Your task to perform on an android device: turn on wifi Image 0: 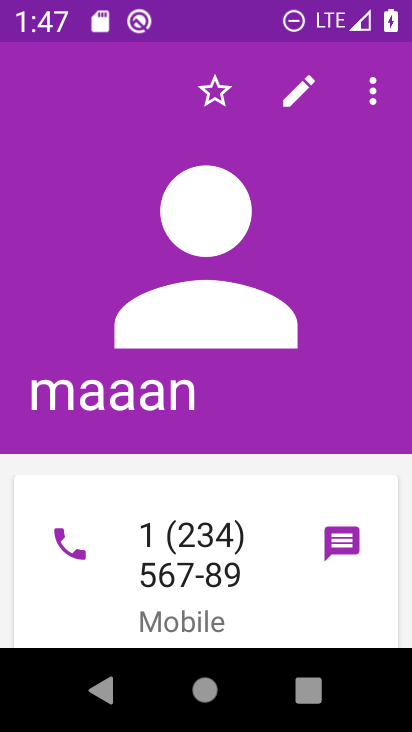
Step 0: press home button
Your task to perform on an android device: turn on wifi Image 1: 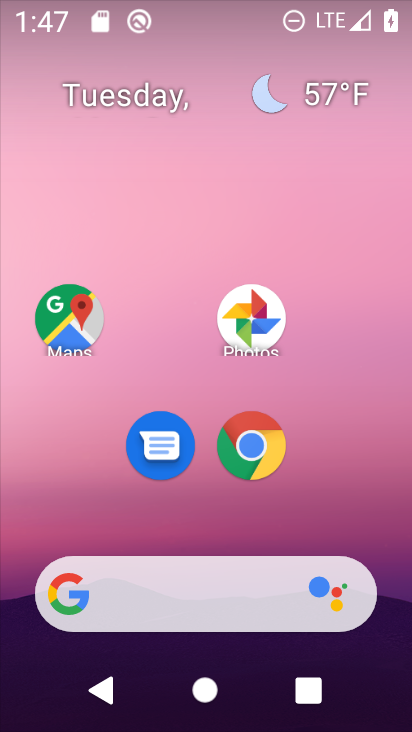
Step 1: drag from (378, 505) to (389, 182)
Your task to perform on an android device: turn on wifi Image 2: 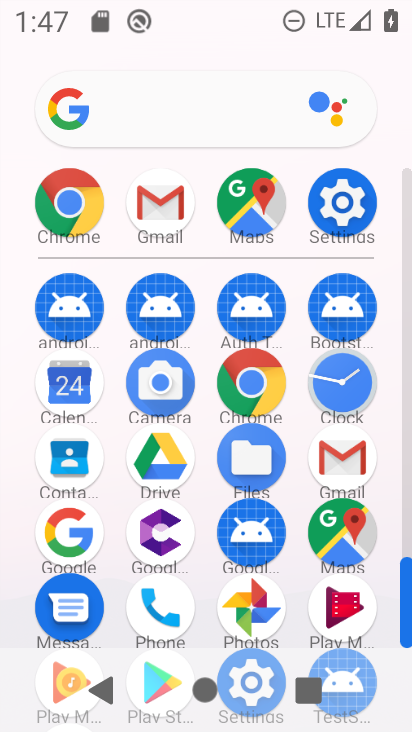
Step 2: click (349, 209)
Your task to perform on an android device: turn on wifi Image 3: 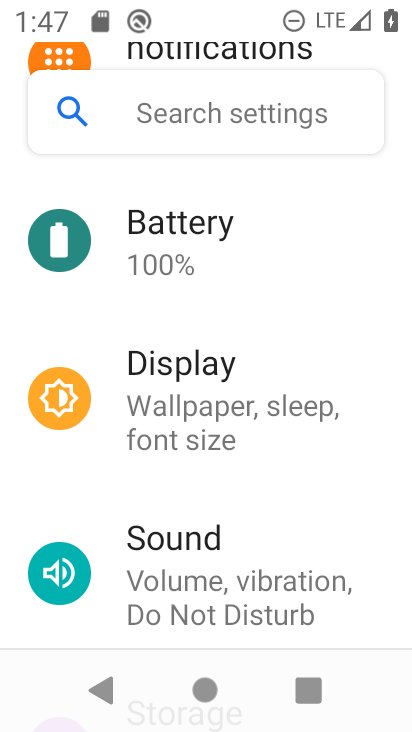
Step 3: drag from (349, 209) to (348, 306)
Your task to perform on an android device: turn on wifi Image 4: 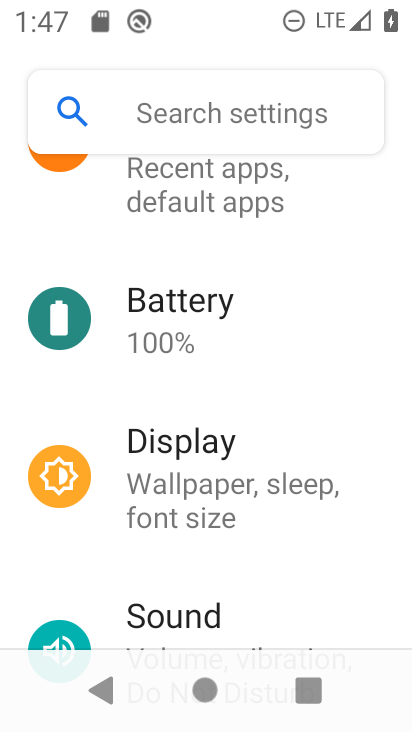
Step 4: drag from (361, 201) to (360, 343)
Your task to perform on an android device: turn on wifi Image 5: 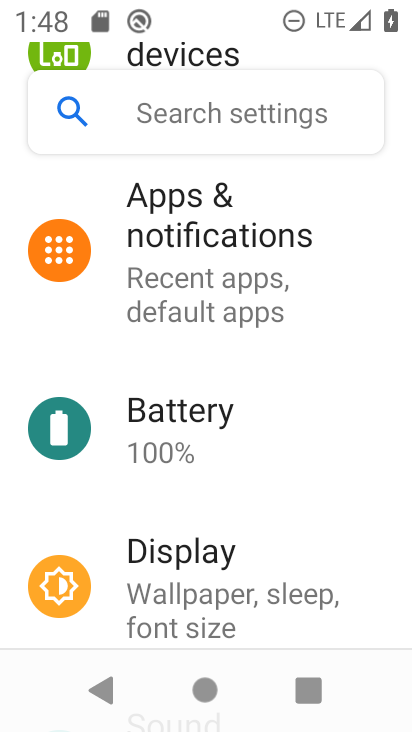
Step 5: drag from (356, 203) to (362, 335)
Your task to perform on an android device: turn on wifi Image 6: 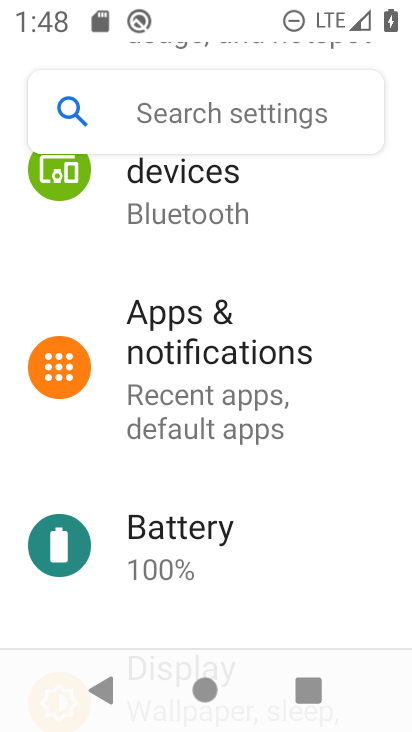
Step 6: drag from (363, 196) to (355, 337)
Your task to perform on an android device: turn on wifi Image 7: 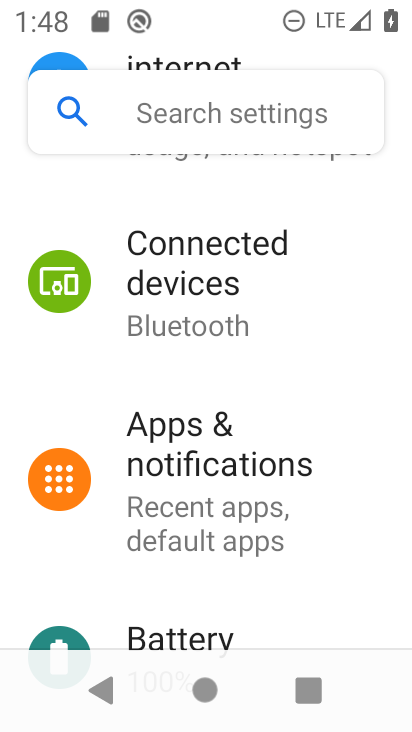
Step 7: drag from (341, 198) to (348, 341)
Your task to perform on an android device: turn on wifi Image 8: 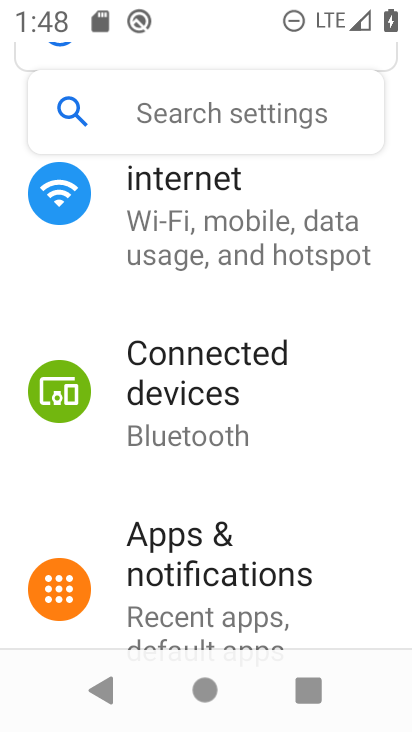
Step 8: drag from (384, 196) to (366, 329)
Your task to perform on an android device: turn on wifi Image 9: 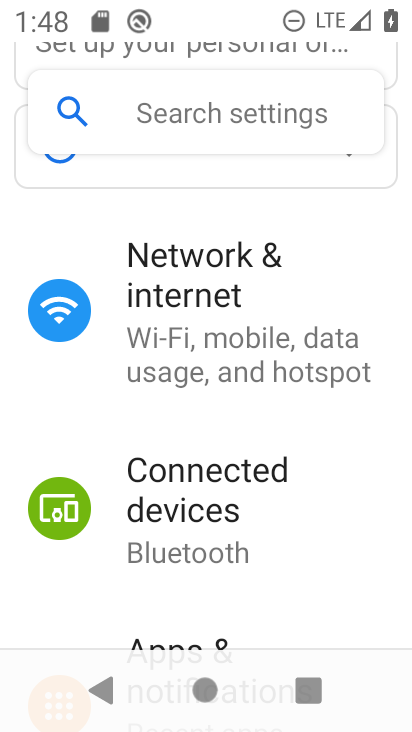
Step 9: click (231, 307)
Your task to perform on an android device: turn on wifi Image 10: 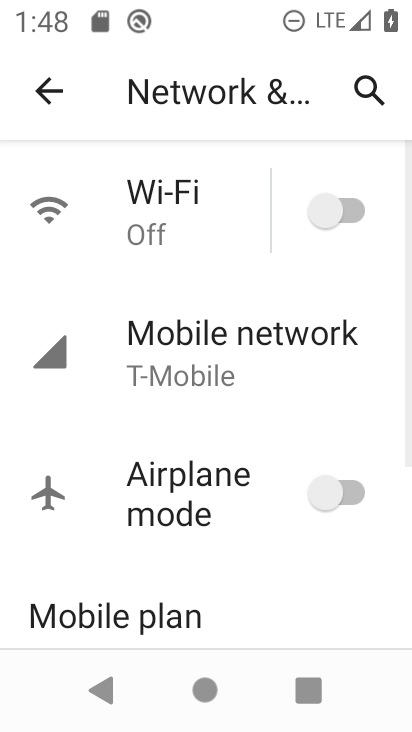
Step 10: click (334, 217)
Your task to perform on an android device: turn on wifi Image 11: 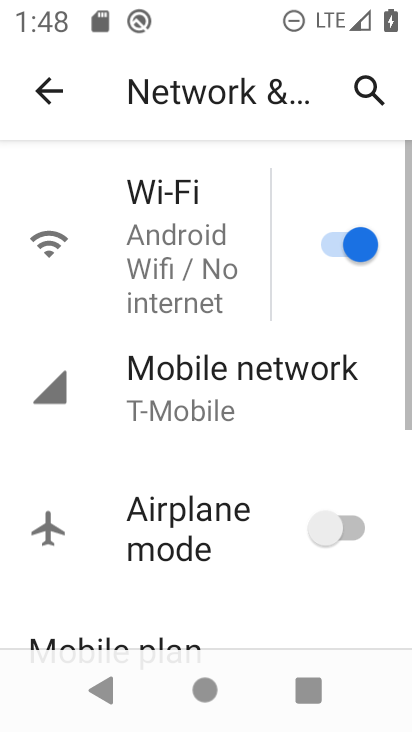
Step 11: task complete